Your task to perform on an android device: turn pop-ups on in chrome Image 0: 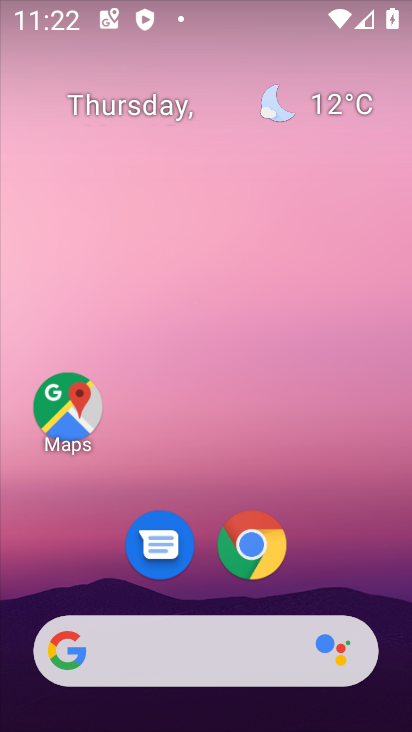
Step 0: click (267, 547)
Your task to perform on an android device: turn pop-ups on in chrome Image 1: 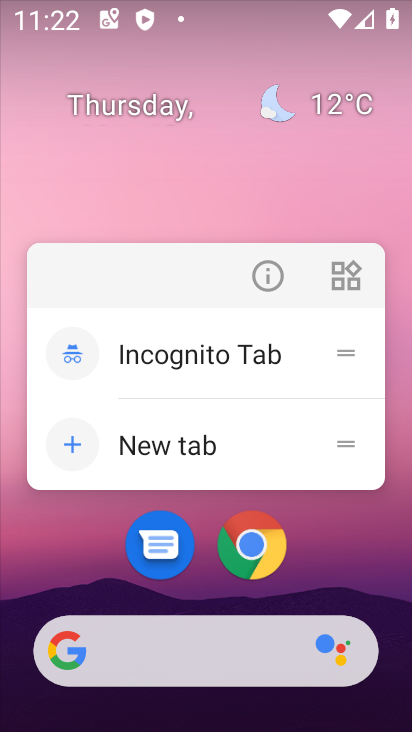
Step 1: click (267, 551)
Your task to perform on an android device: turn pop-ups on in chrome Image 2: 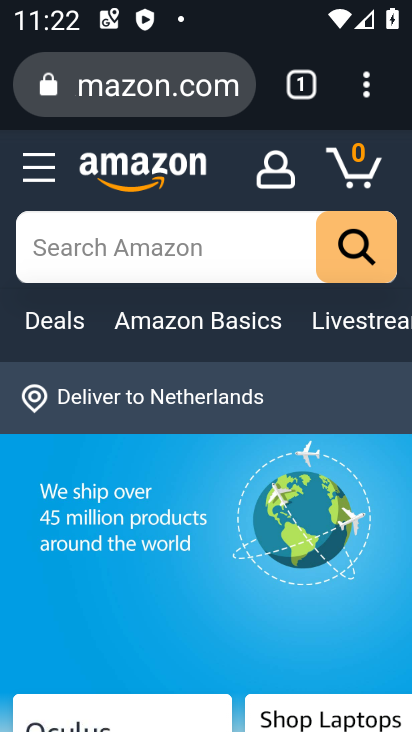
Step 2: drag from (362, 93) to (198, 604)
Your task to perform on an android device: turn pop-ups on in chrome Image 3: 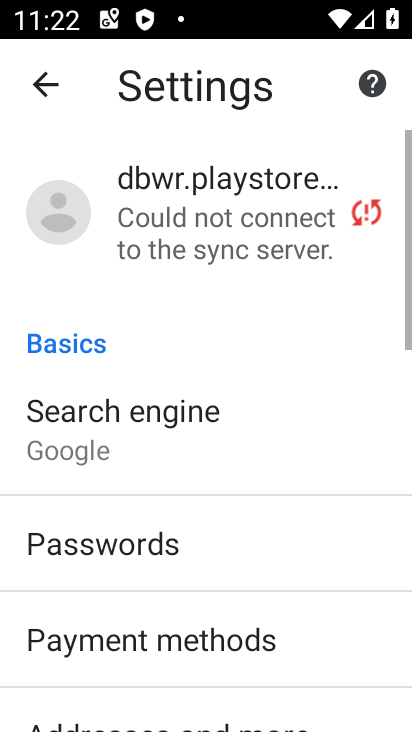
Step 3: drag from (198, 604) to (219, 225)
Your task to perform on an android device: turn pop-ups on in chrome Image 4: 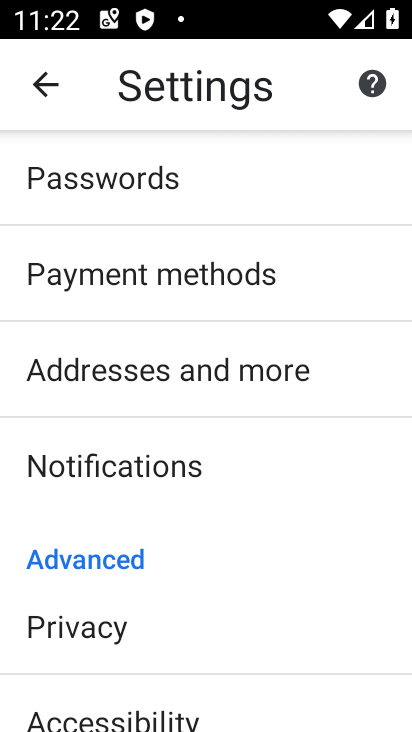
Step 4: drag from (196, 632) to (228, 314)
Your task to perform on an android device: turn pop-ups on in chrome Image 5: 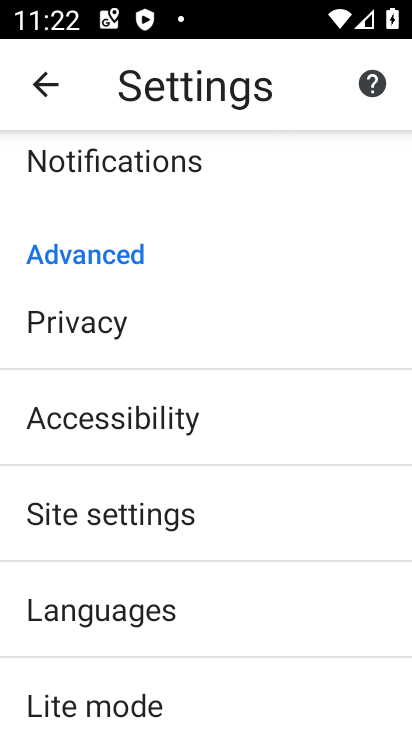
Step 5: drag from (203, 582) to (235, 383)
Your task to perform on an android device: turn pop-ups on in chrome Image 6: 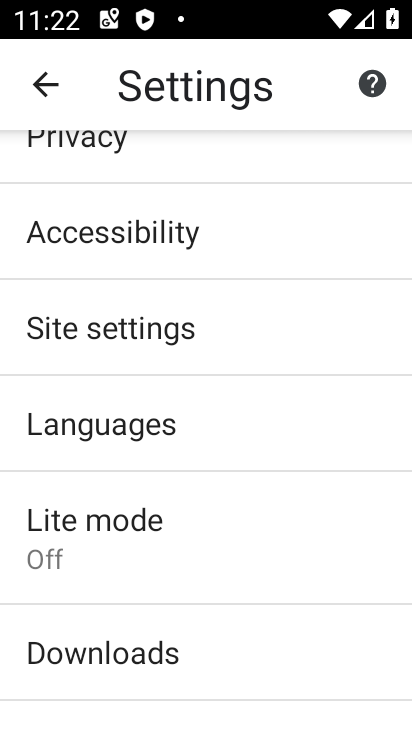
Step 6: click (189, 339)
Your task to perform on an android device: turn pop-ups on in chrome Image 7: 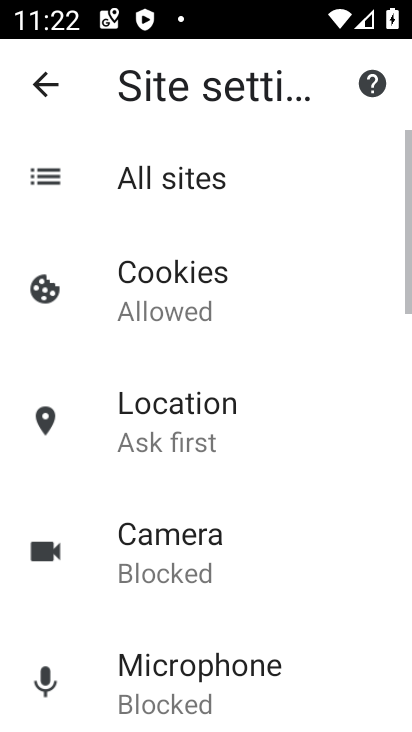
Step 7: drag from (328, 648) to (321, 266)
Your task to perform on an android device: turn pop-ups on in chrome Image 8: 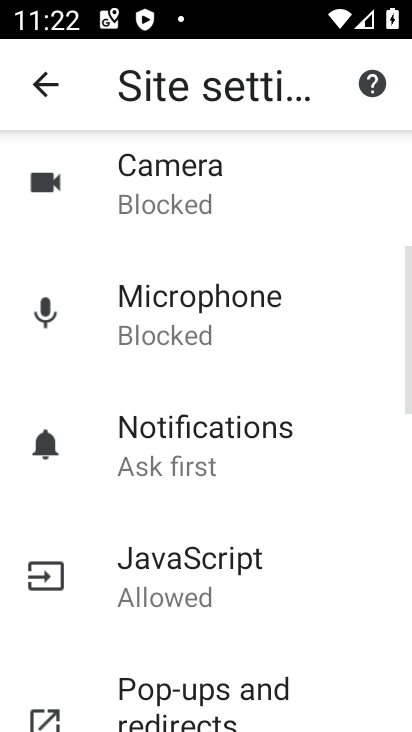
Step 8: drag from (255, 640) to (260, 484)
Your task to perform on an android device: turn pop-ups on in chrome Image 9: 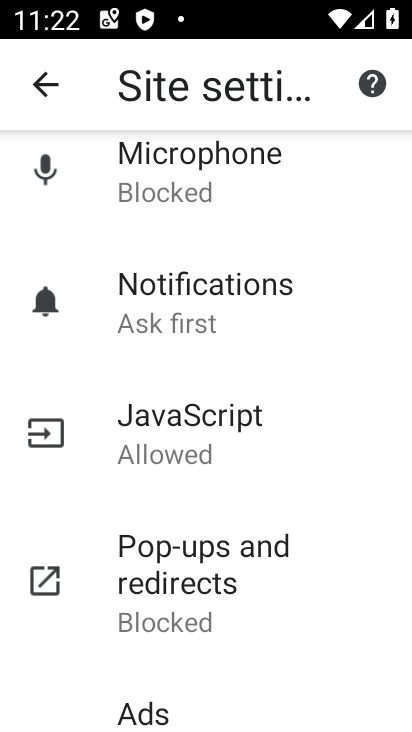
Step 9: click (237, 558)
Your task to perform on an android device: turn pop-ups on in chrome Image 10: 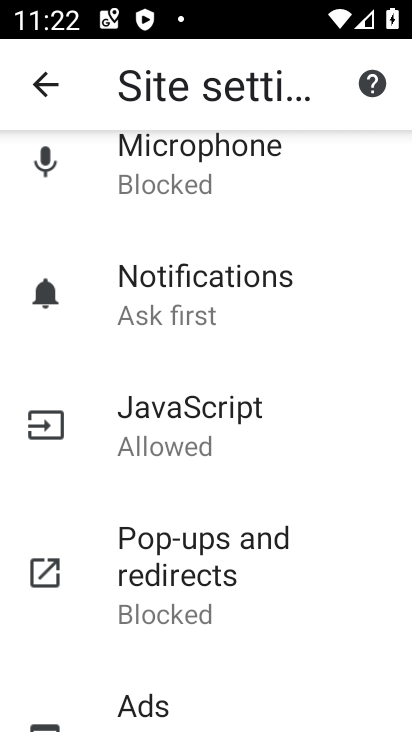
Step 10: click (208, 571)
Your task to perform on an android device: turn pop-ups on in chrome Image 11: 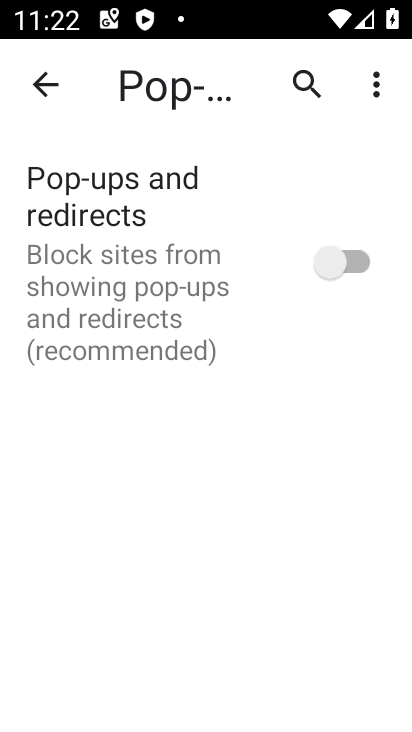
Step 11: click (336, 272)
Your task to perform on an android device: turn pop-ups on in chrome Image 12: 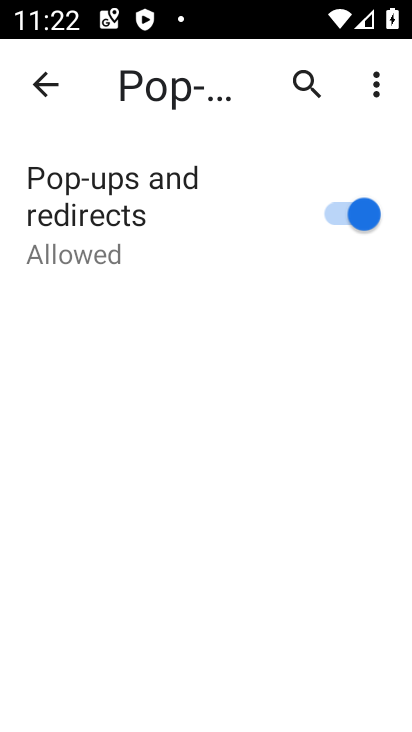
Step 12: task complete